Your task to perform on an android device: Set the phone to "Do not disturb". Image 0: 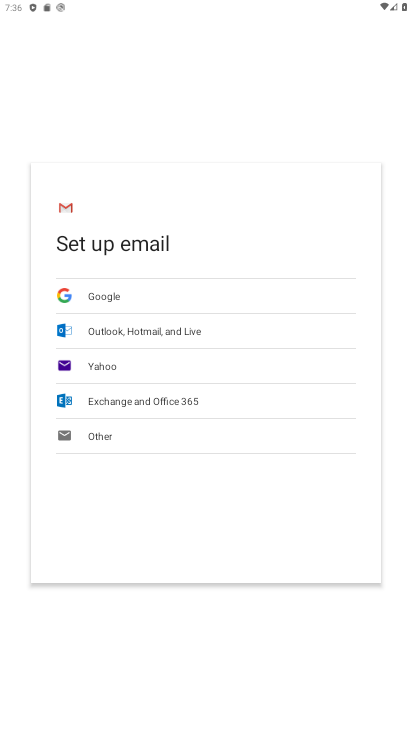
Step 0: press home button
Your task to perform on an android device: Set the phone to "Do not disturb". Image 1: 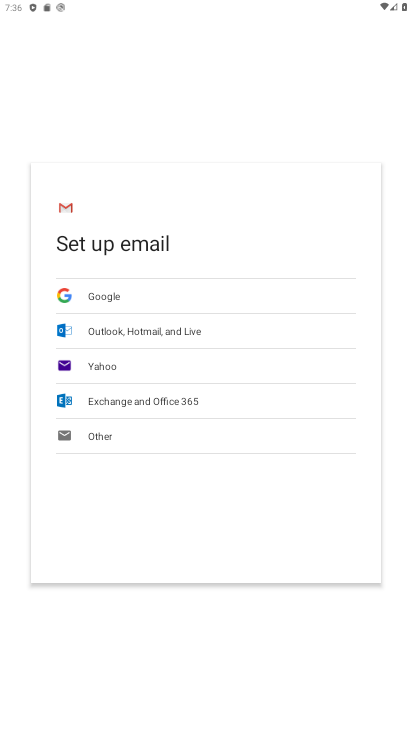
Step 1: press home button
Your task to perform on an android device: Set the phone to "Do not disturb". Image 2: 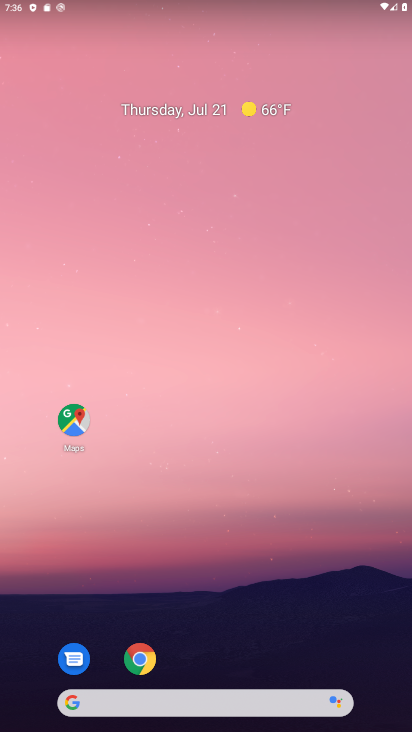
Step 2: drag from (209, 583) to (320, 215)
Your task to perform on an android device: Set the phone to "Do not disturb". Image 3: 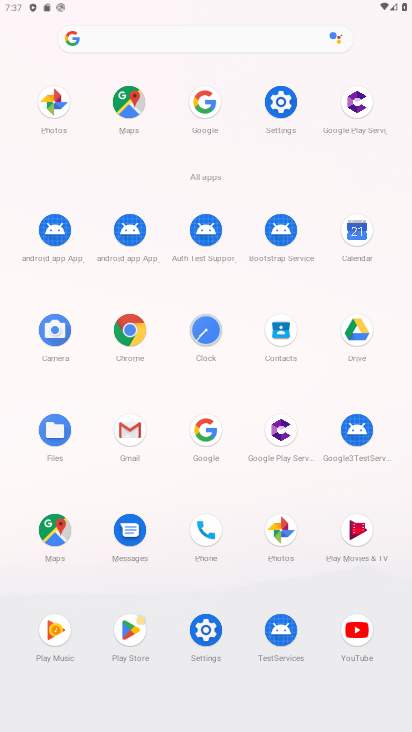
Step 3: click (198, 632)
Your task to perform on an android device: Set the phone to "Do not disturb". Image 4: 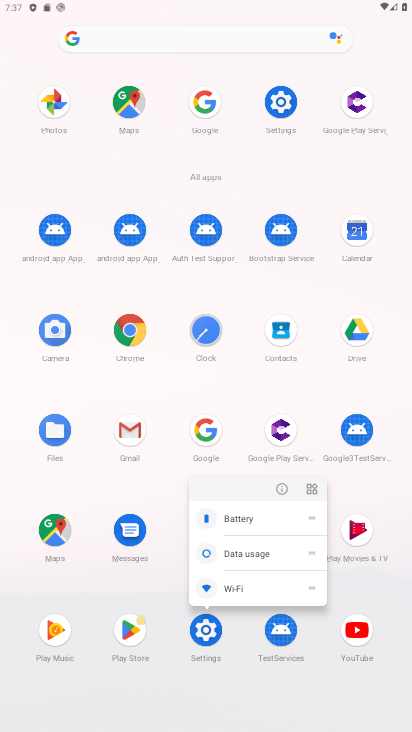
Step 4: click (281, 492)
Your task to perform on an android device: Set the phone to "Do not disturb". Image 5: 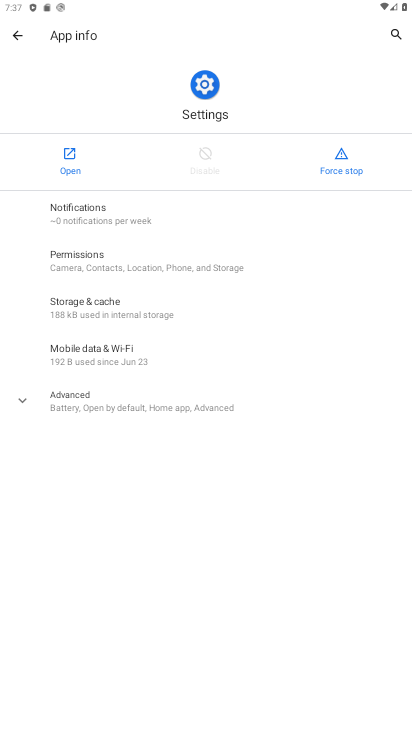
Step 5: click (57, 154)
Your task to perform on an android device: Set the phone to "Do not disturb". Image 6: 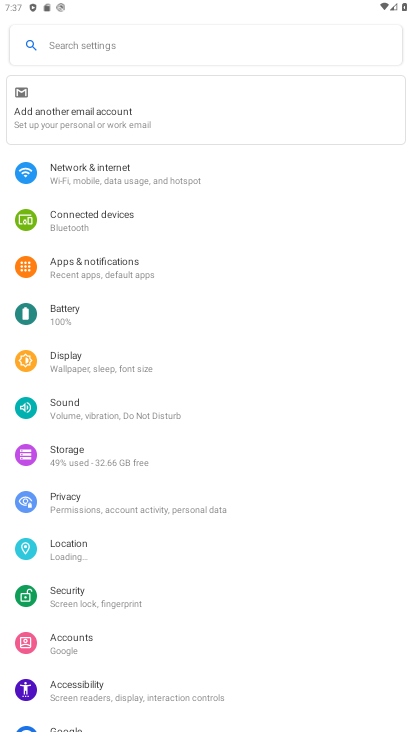
Step 6: click (125, 256)
Your task to perform on an android device: Set the phone to "Do not disturb". Image 7: 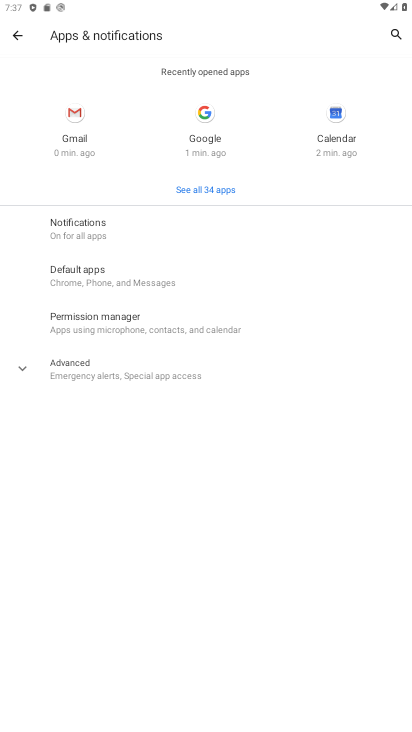
Step 7: click (124, 223)
Your task to perform on an android device: Set the phone to "Do not disturb". Image 8: 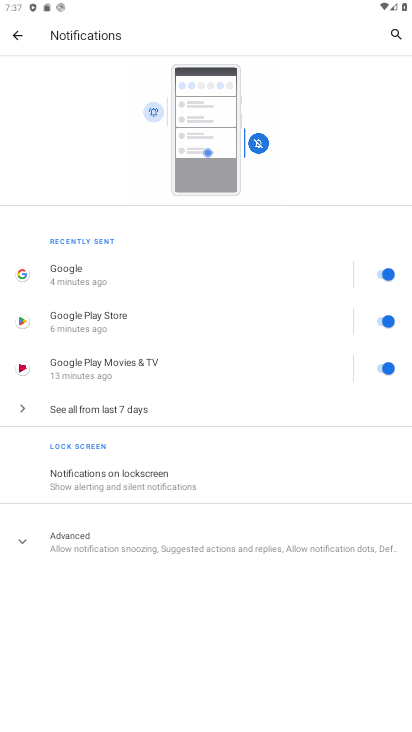
Step 8: click (107, 550)
Your task to perform on an android device: Set the phone to "Do not disturb". Image 9: 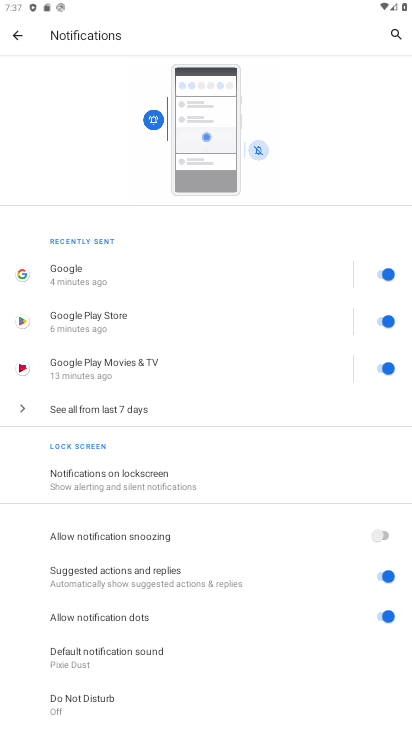
Step 9: drag from (220, 558) to (275, 127)
Your task to perform on an android device: Set the phone to "Do not disturb". Image 10: 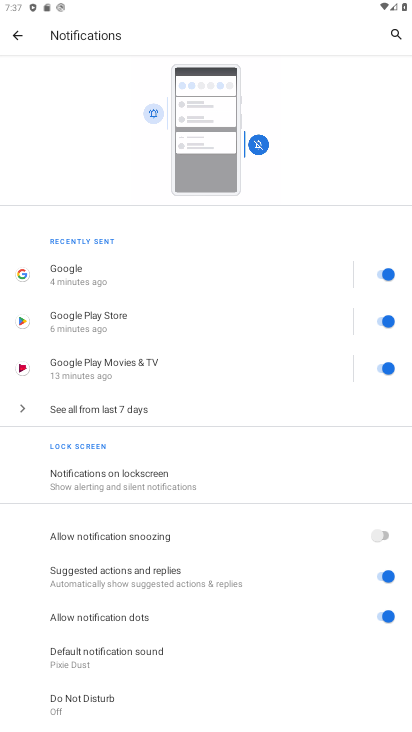
Step 10: click (128, 700)
Your task to perform on an android device: Set the phone to "Do not disturb". Image 11: 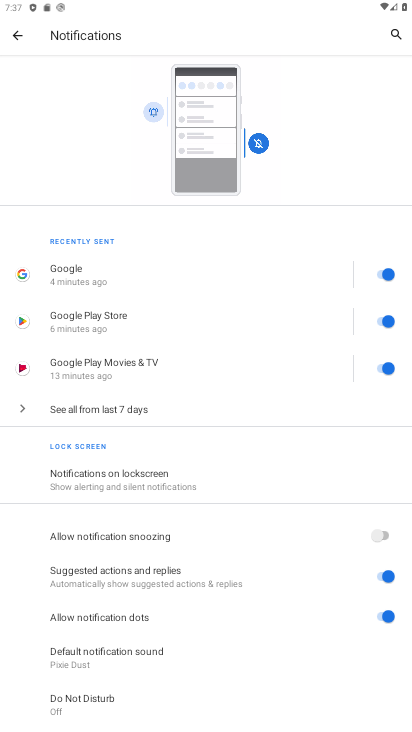
Step 11: drag from (162, 642) to (230, 271)
Your task to perform on an android device: Set the phone to "Do not disturb". Image 12: 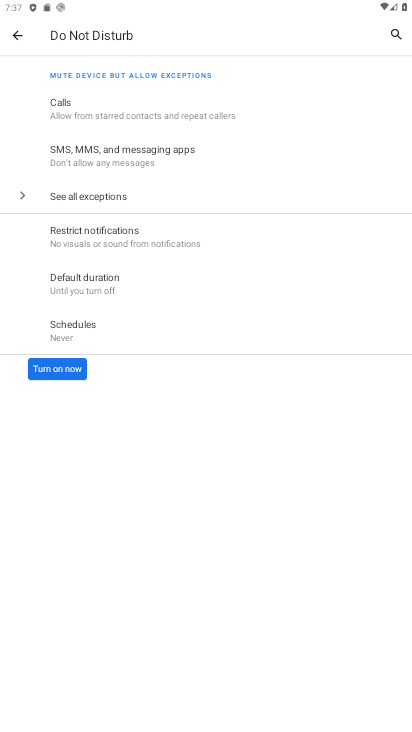
Step 12: click (53, 370)
Your task to perform on an android device: Set the phone to "Do not disturb". Image 13: 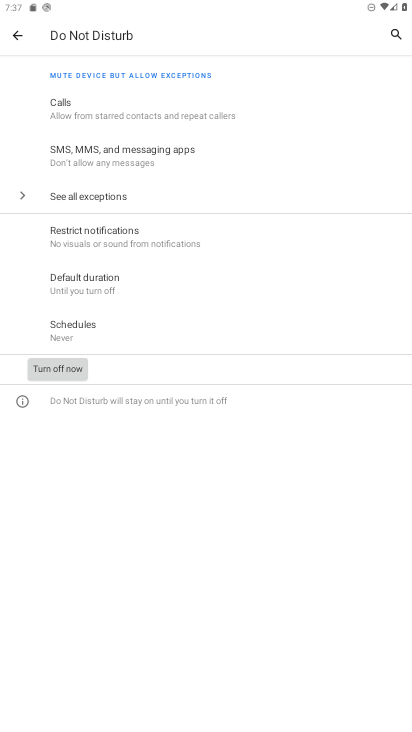
Step 13: task complete